Your task to perform on an android device: Go to ESPN.com Image 0: 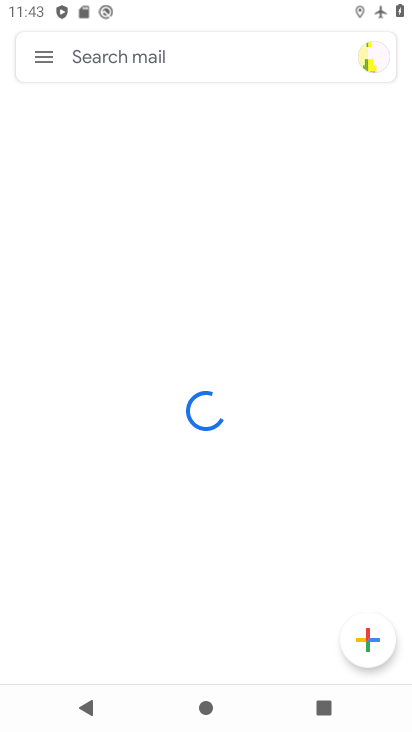
Step 0: press home button
Your task to perform on an android device: Go to ESPN.com Image 1: 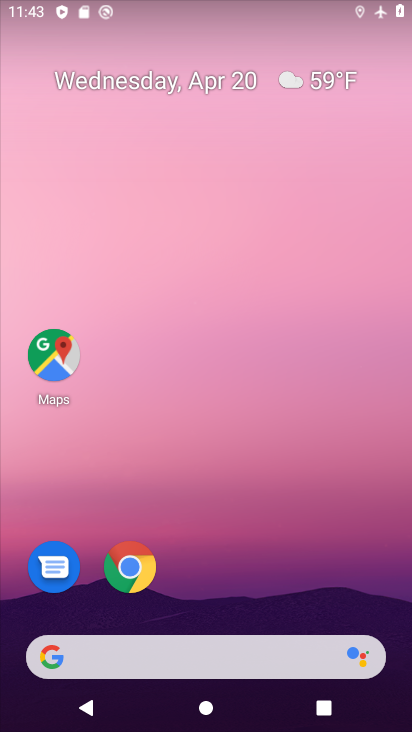
Step 1: click (127, 567)
Your task to perform on an android device: Go to ESPN.com Image 2: 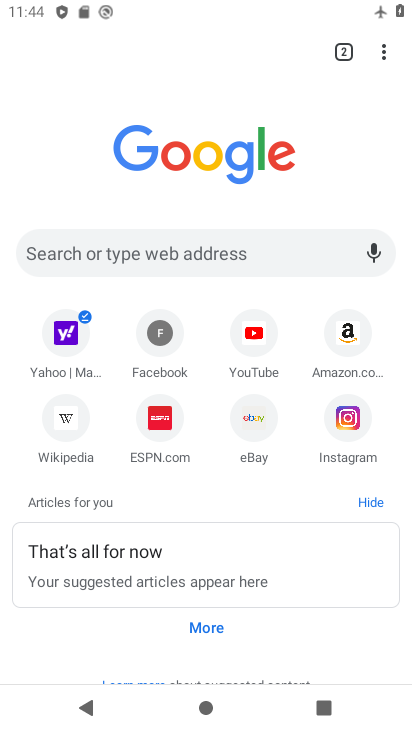
Step 2: click (179, 244)
Your task to perform on an android device: Go to ESPN.com Image 3: 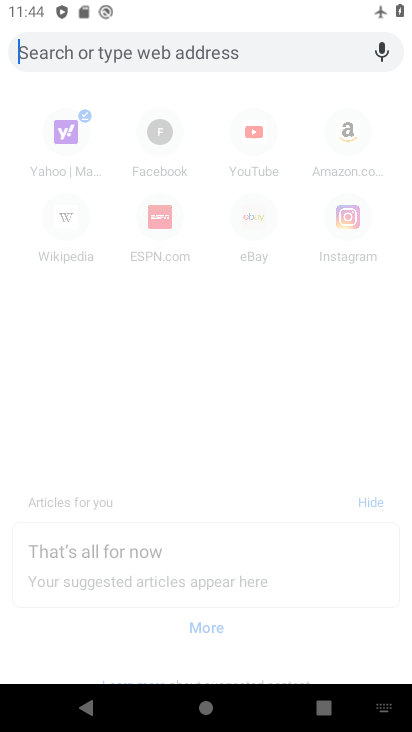
Step 3: type "ESPN.com"
Your task to perform on an android device: Go to ESPN.com Image 4: 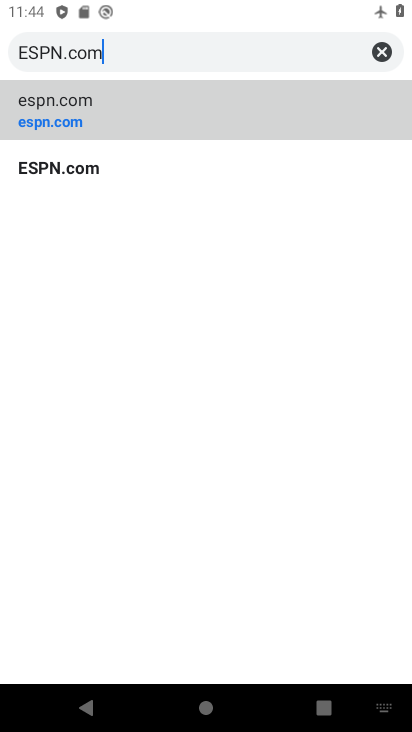
Step 4: click (31, 98)
Your task to perform on an android device: Go to ESPN.com Image 5: 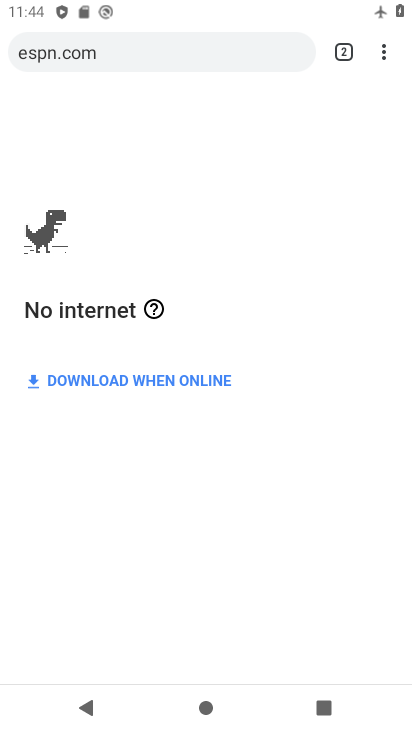
Step 5: task complete